Your task to perform on an android device: open device folders in google photos Image 0: 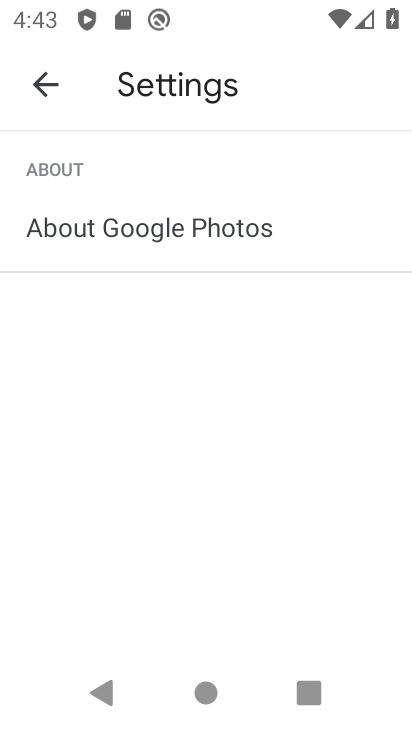
Step 0: press home button
Your task to perform on an android device: open device folders in google photos Image 1: 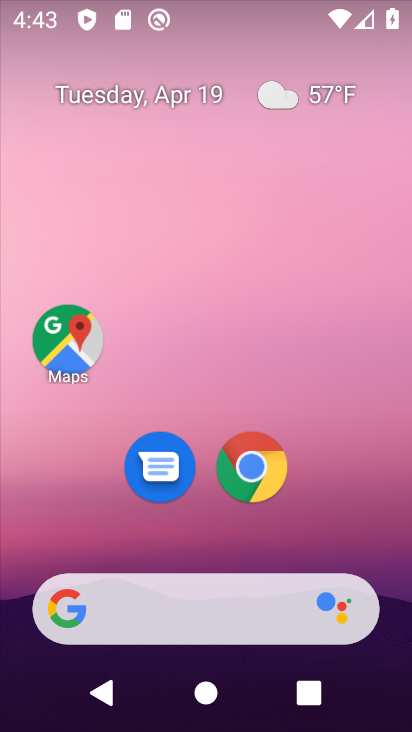
Step 1: drag from (264, 568) to (303, 190)
Your task to perform on an android device: open device folders in google photos Image 2: 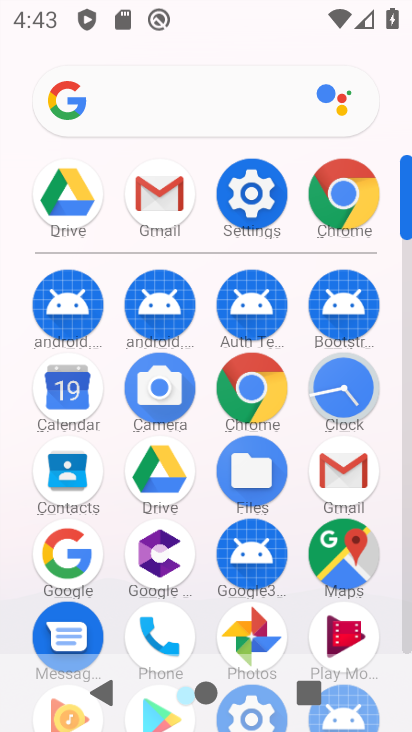
Step 2: click (272, 628)
Your task to perform on an android device: open device folders in google photos Image 3: 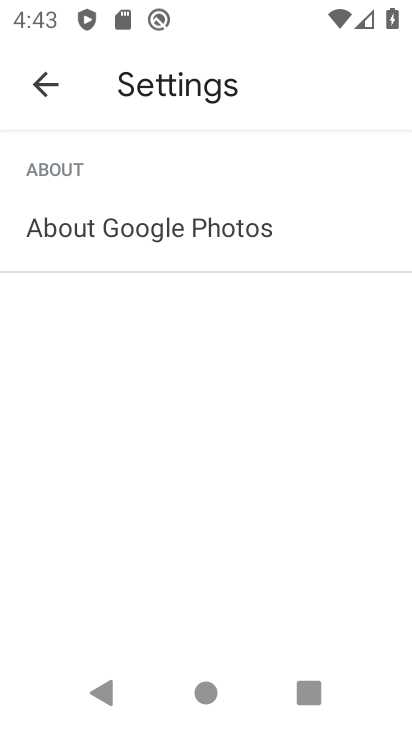
Step 3: click (47, 92)
Your task to perform on an android device: open device folders in google photos Image 4: 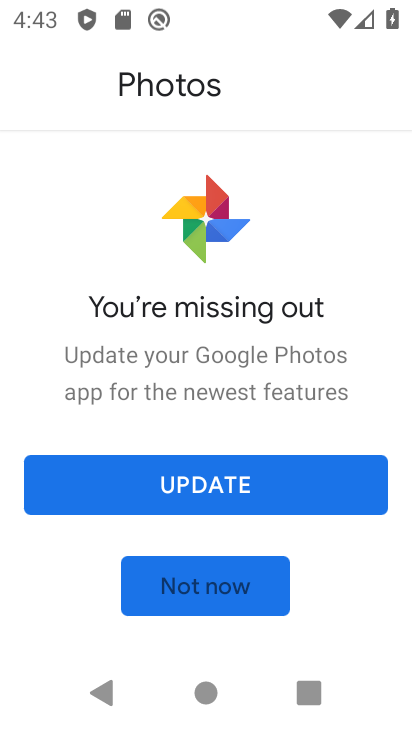
Step 4: task complete